Your task to perform on an android device: Open CNN.com Image 0: 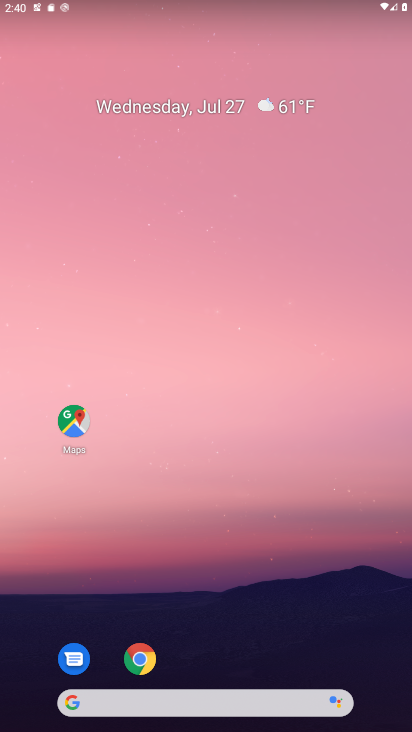
Step 0: click (132, 658)
Your task to perform on an android device: Open CNN.com Image 1: 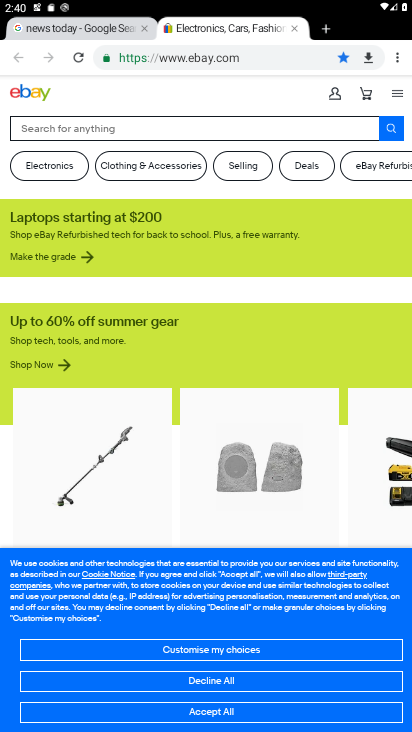
Step 1: click (205, 61)
Your task to perform on an android device: Open CNN.com Image 2: 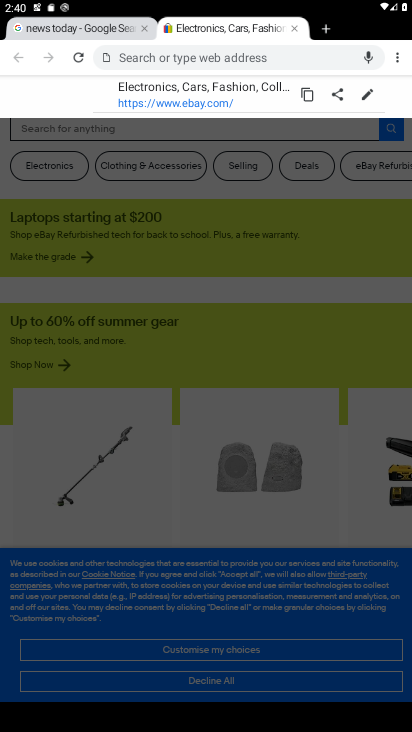
Step 2: type "cnn.com"
Your task to perform on an android device: Open CNN.com Image 3: 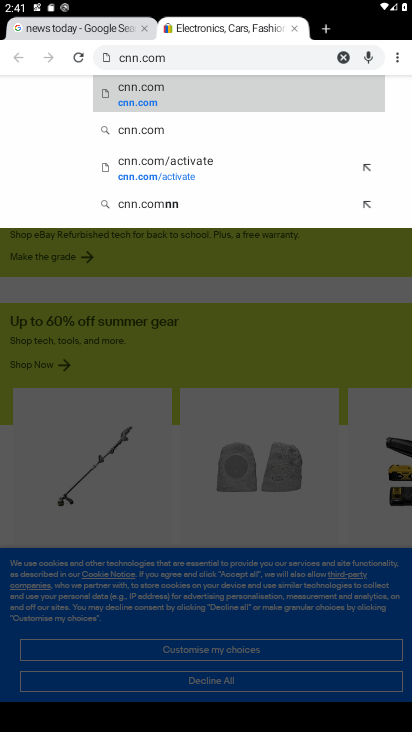
Step 3: click (172, 91)
Your task to perform on an android device: Open CNN.com Image 4: 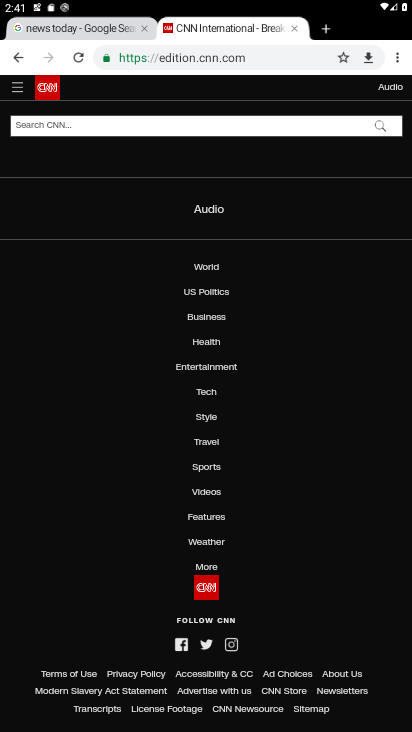
Step 4: task complete